Your task to perform on an android device: Open privacy settings Image 0: 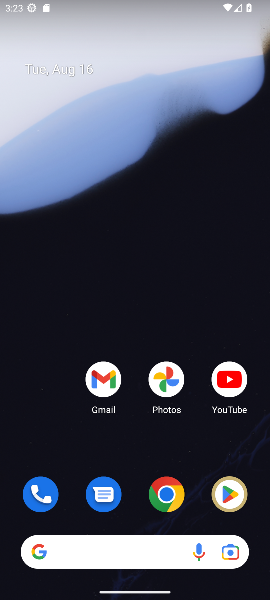
Step 0: drag from (119, 535) to (106, 0)
Your task to perform on an android device: Open privacy settings Image 1: 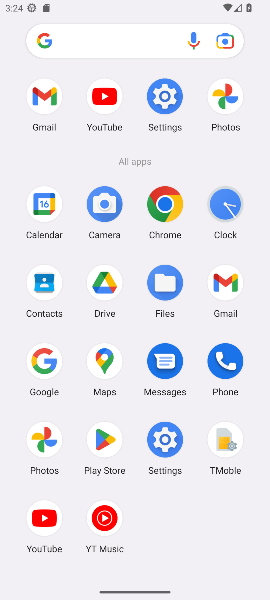
Step 1: click (159, 443)
Your task to perform on an android device: Open privacy settings Image 2: 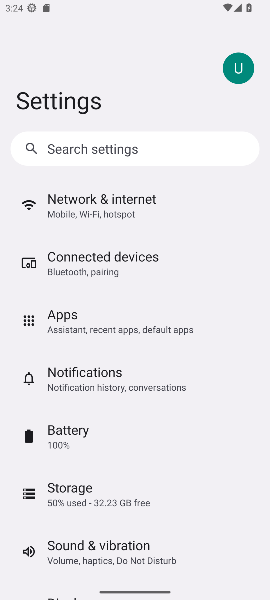
Step 2: drag from (25, 522) to (16, 90)
Your task to perform on an android device: Open privacy settings Image 3: 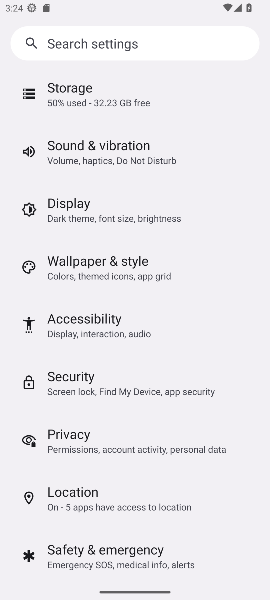
Step 3: click (79, 450)
Your task to perform on an android device: Open privacy settings Image 4: 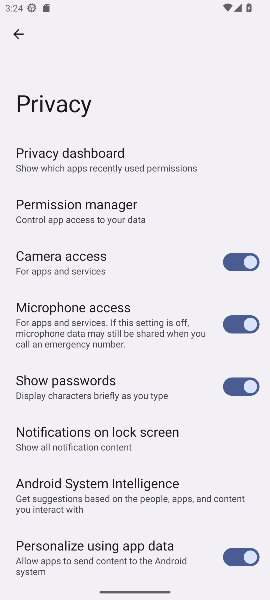
Step 4: task complete